Your task to perform on an android device: change alarm snooze length Image 0: 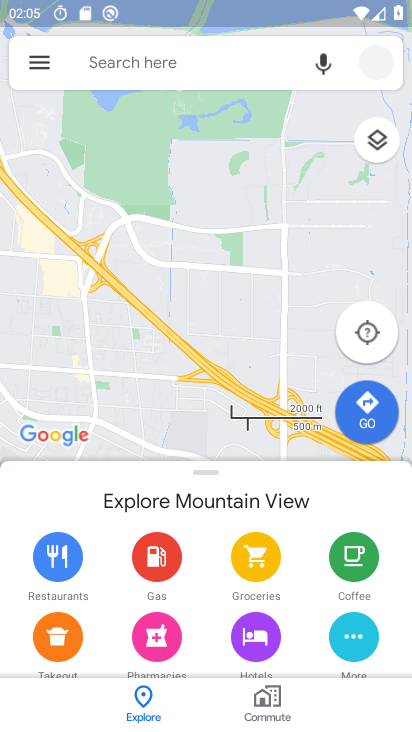
Step 0: press home button
Your task to perform on an android device: change alarm snooze length Image 1: 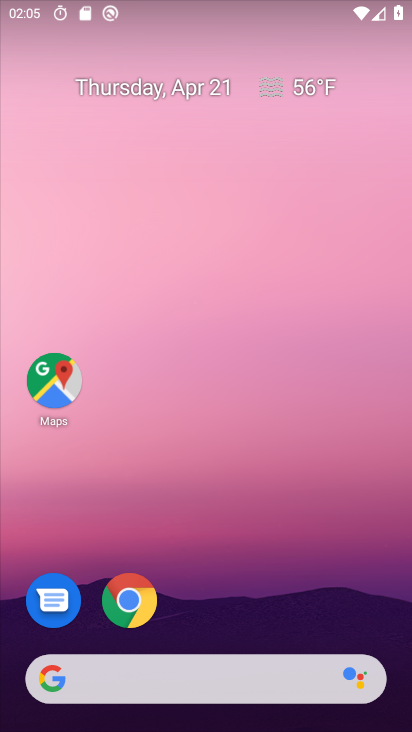
Step 1: drag from (267, 561) to (246, 197)
Your task to perform on an android device: change alarm snooze length Image 2: 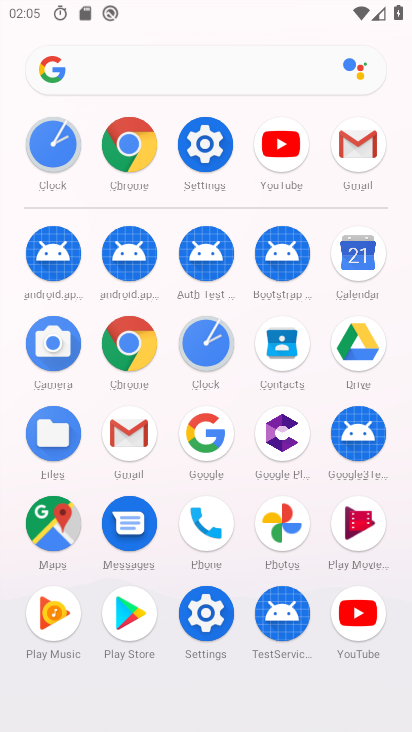
Step 2: click (58, 156)
Your task to perform on an android device: change alarm snooze length Image 3: 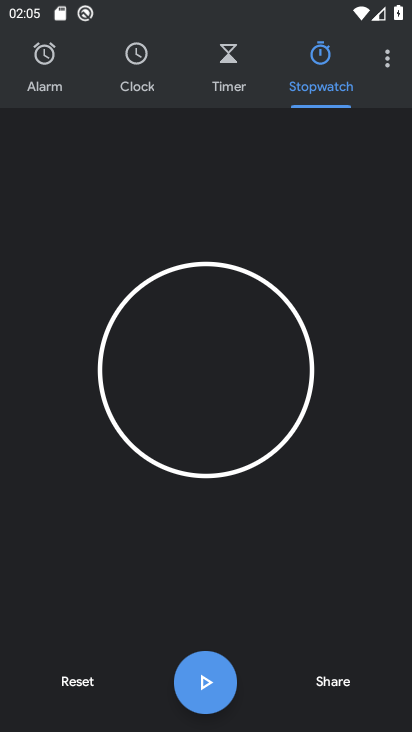
Step 3: click (385, 57)
Your task to perform on an android device: change alarm snooze length Image 4: 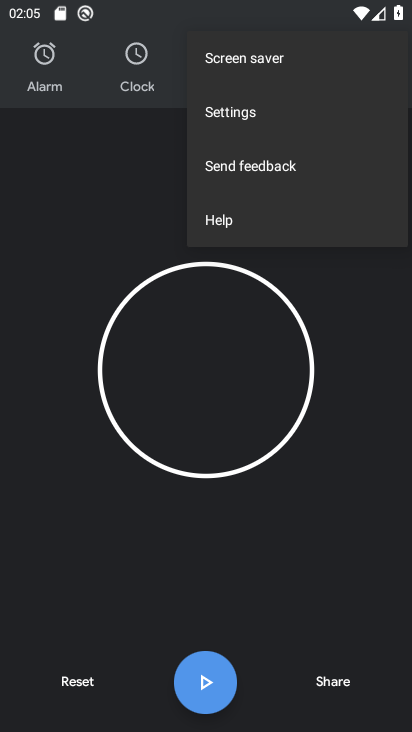
Step 4: click (315, 122)
Your task to perform on an android device: change alarm snooze length Image 5: 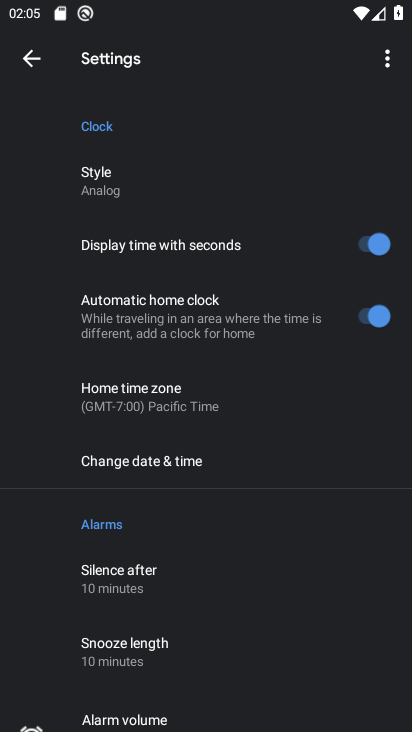
Step 5: drag from (269, 561) to (312, 230)
Your task to perform on an android device: change alarm snooze length Image 6: 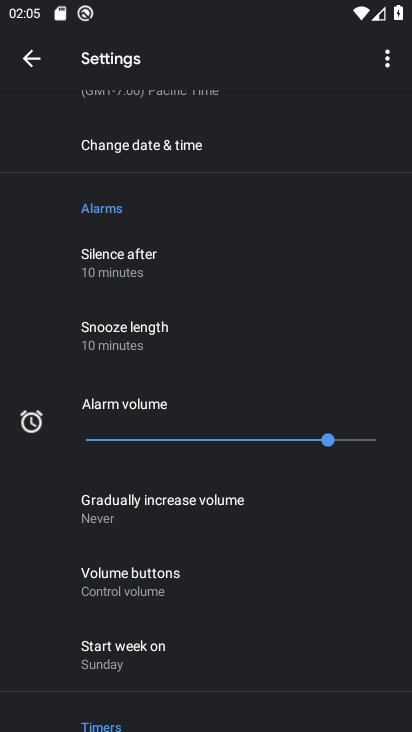
Step 6: click (211, 328)
Your task to perform on an android device: change alarm snooze length Image 7: 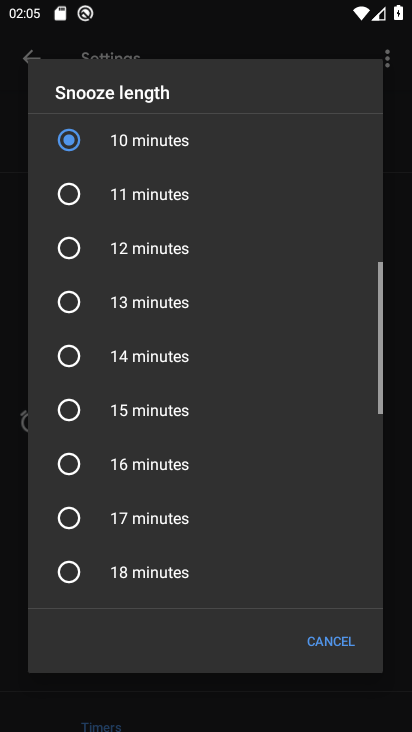
Step 7: click (169, 255)
Your task to perform on an android device: change alarm snooze length Image 8: 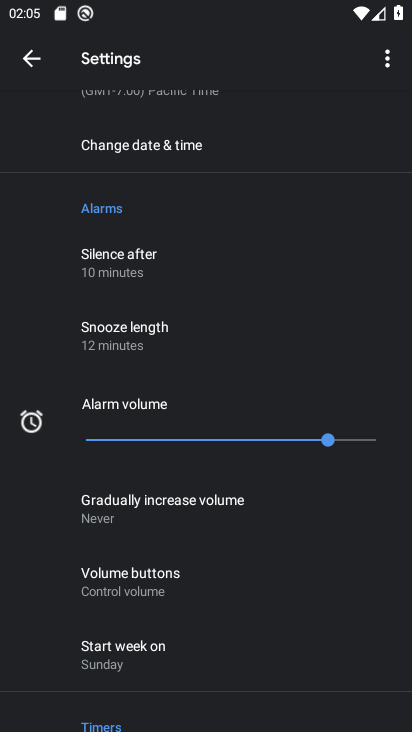
Step 8: task complete